Your task to perform on an android device: Clear the cart on target. Add "logitech g933" to the cart on target Image 0: 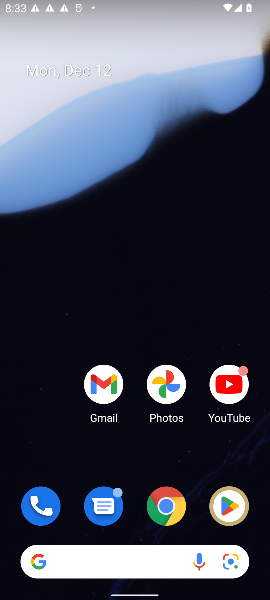
Step 0: task complete